Your task to perform on an android device: toggle notification dots Image 0: 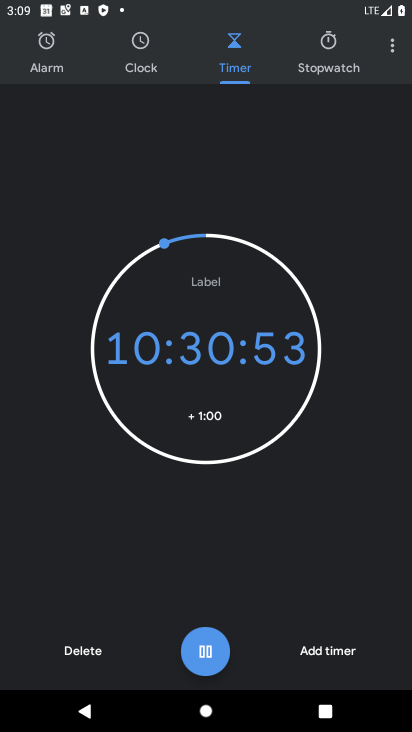
Step 0: press home button
Your task to perform on an android device: toggle notification dots Image 1: 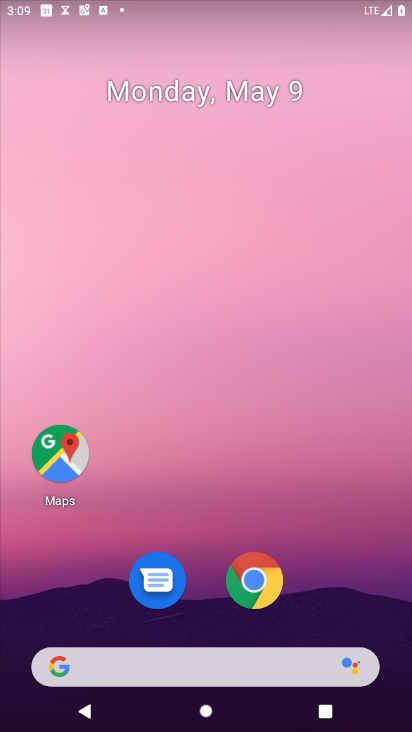
Step 1: drag from (370, 544) to (312, 222)
Your task to perform on an android device: toggle notification dots Image 2: 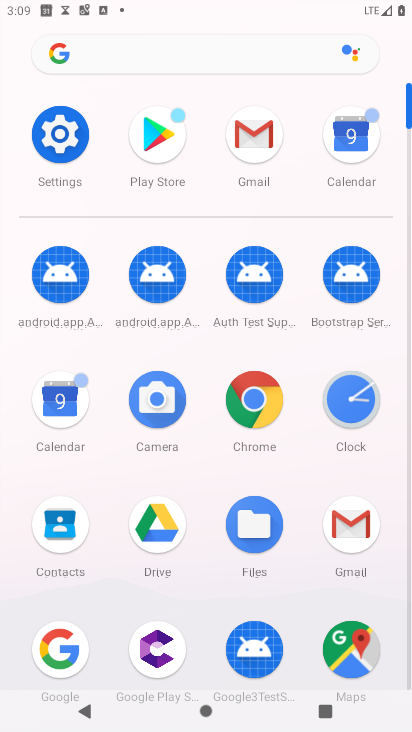
Step 2: click (87, 136)
Your task to perform on an android device: toggle notification dots Image 3: 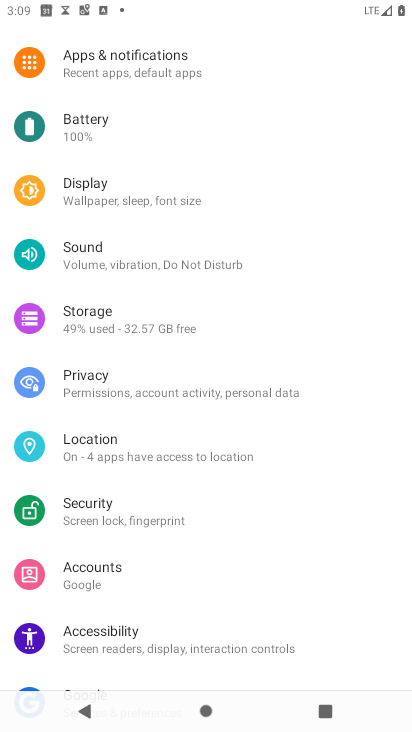
Step 3: click (189, 73)
Your task to perform on an android device: toggle notification dots Image 4: 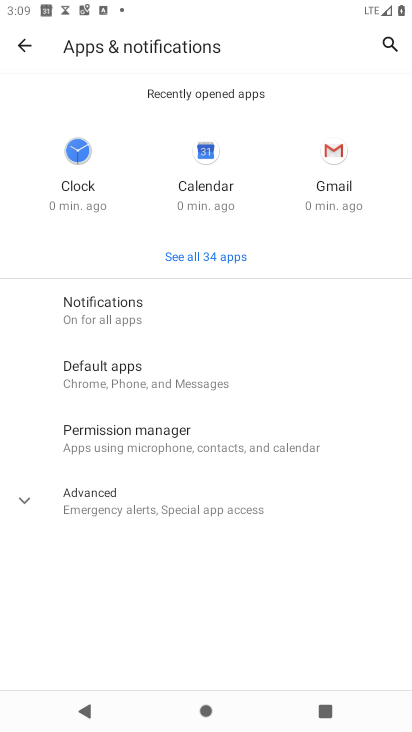
Step 4: click (150, 311)
Your task to perform on an android device: toggle notification dots Image 5: 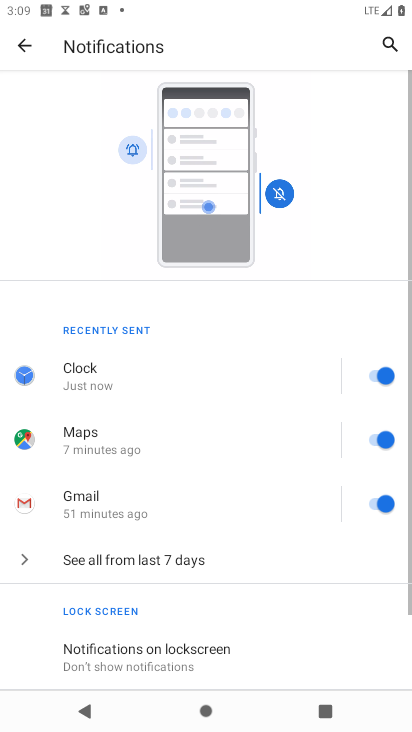
Step 5: drag from (188, 657) to (189, 166)
Your task to perform on an android device: toggle notification dots Image 6: 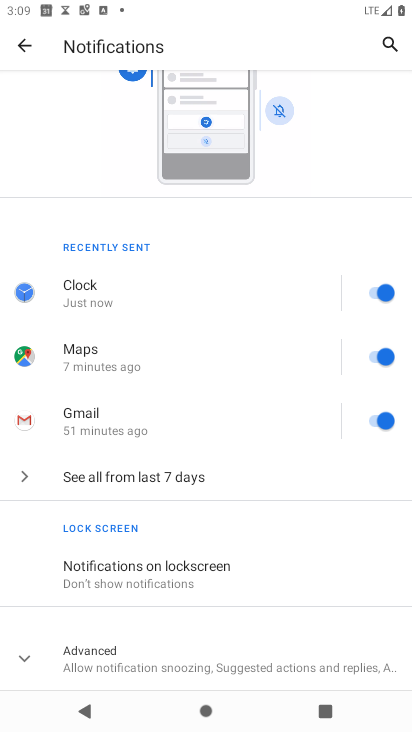
Step 6: click (169, 647)
Your task to perform on an android device: toggle notification dots Image 7: 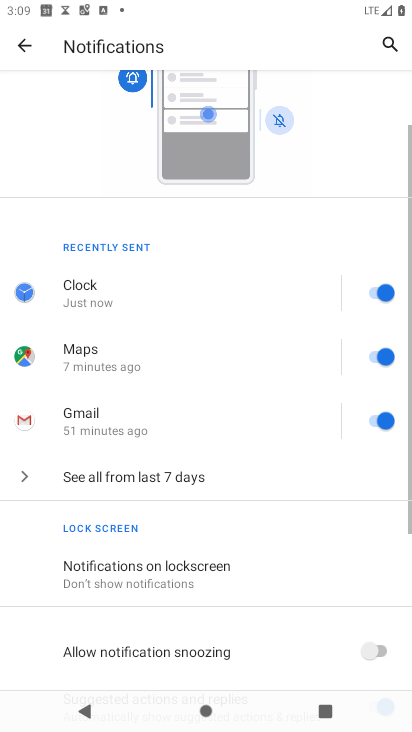
Step 7: drag from (243, 564) to (247, 141)
Your task to perform on an android device: toggle notification dots Image 8: 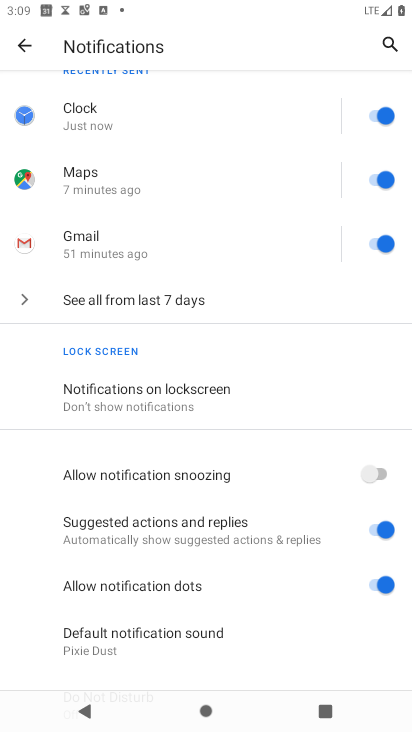
Step 8: drag from (237, 536) to (233, 174)
Your task to perform on an android device: toggle notification dots Image 9: 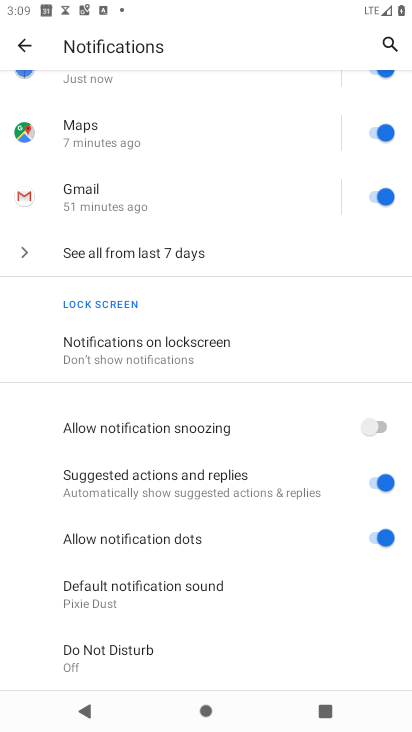
Step 9: click (392, 538)
Your task to perform on an android device: toggle notification dots Image 10: 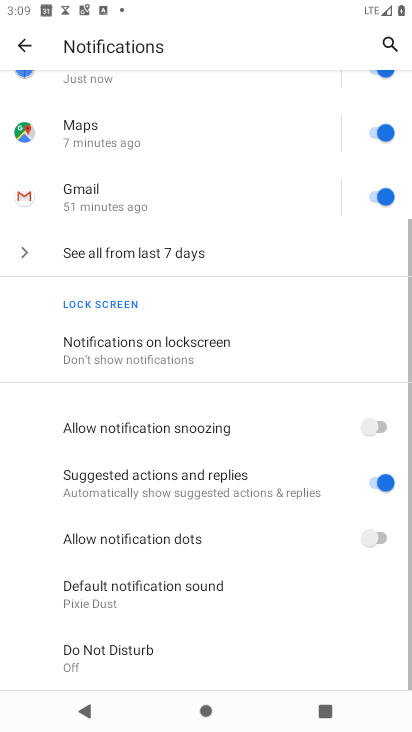
Step 10: task complete